Your task to perform on an android device: set an alarm Image 0: 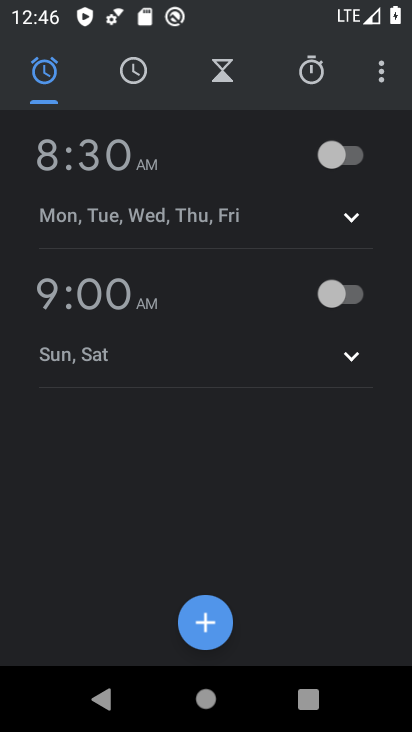
Step 0: press home button
Your task to perform on an android device: set an alarm Image 1: 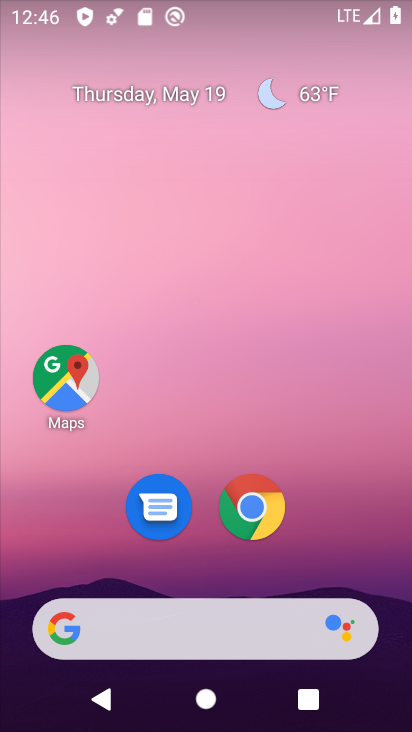
Step 1: drag from (216, 577) to (335, 236)
Your task to perform on an android device: set an alarm Image 2: 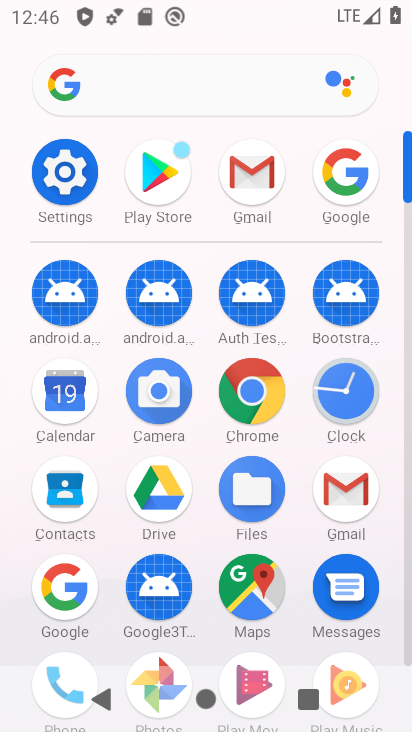
Step 2: click (363, 403)
Your task to perform on an android device: set an alarm Image 3: 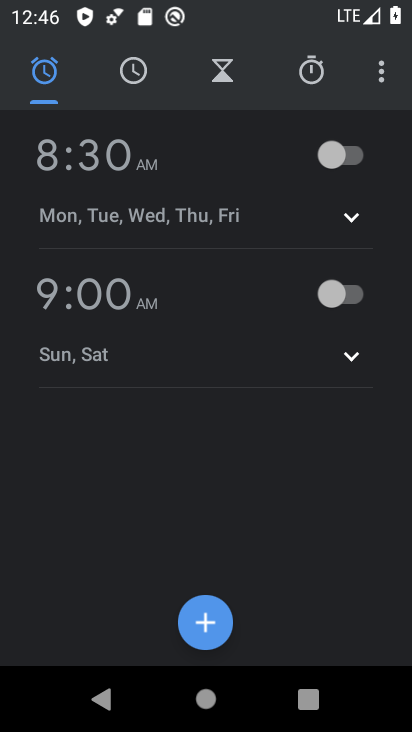
Step 3: click (199, 628)
Your task to perform on an android device: set an alarm Image 4: 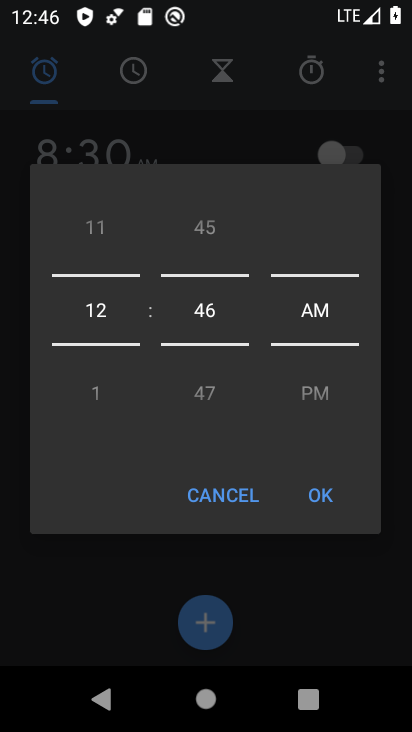
Step 4: drag from (96, 325) to (198, 58)
Your task to perform on an android device: set an alarm Image 5: 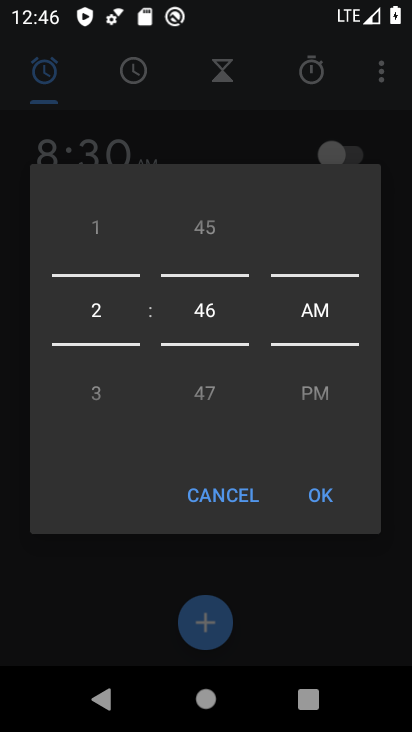
Step 5: drag from (109, 329) to (125, 130)
Your task to perform on an android device: set an alarm Image 6: 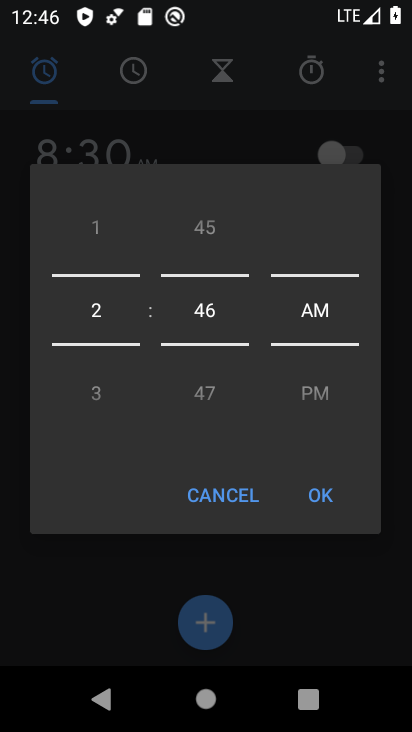
Step 6: drag from (111, 329) to (157, 73)
Your task to perform on an android device: set an alarm Image 7: 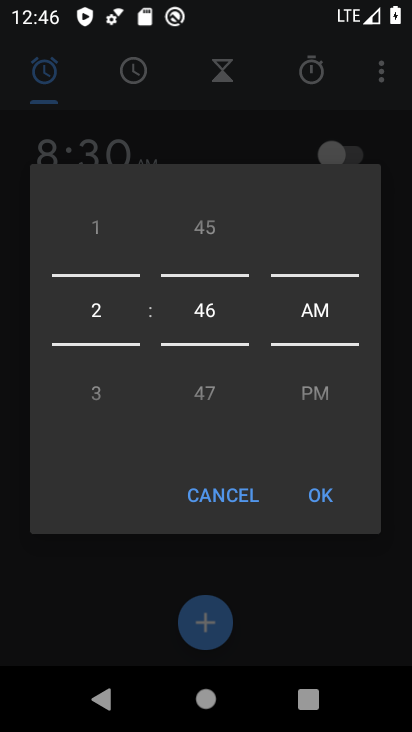
Step 7: drag from (101, 329) to (143, 88)
Your task to perform on an android device: set an alarm Image 8: 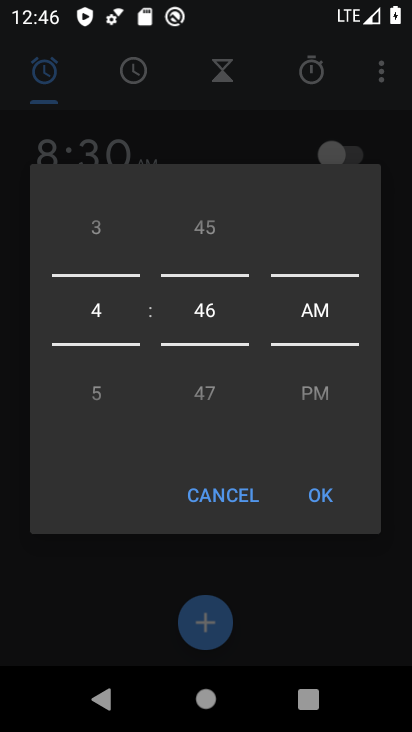
Step 8: drag from (112, 340) to (160, 126)
Your task to perform on an android device: set an alarm Image 9: 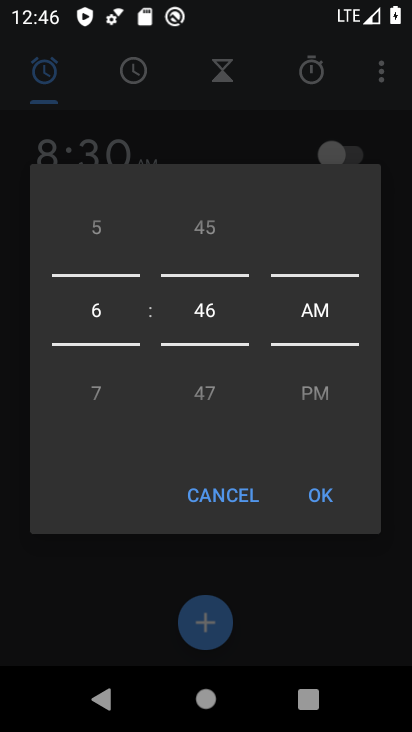
Step 9: drag from (209, 321) to (233, 148)
Your task to perform on an android device: set an alarm Image 10: 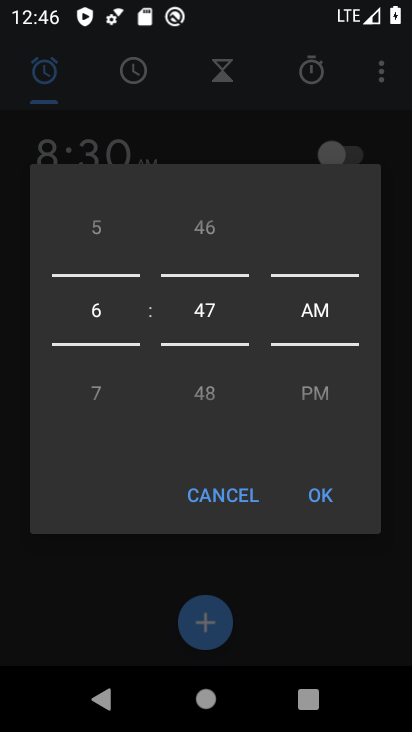
Step 10: drag from (195, 293) to (207, 443)
Your task to perform on an android device: set an alarm Image 11: 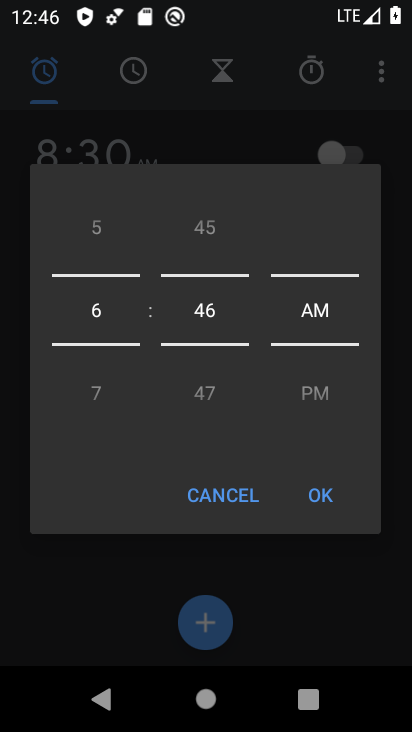
Step 11: drag from (199, 324) to (273, 89)
Your task to perform on an android device: set an alarm Image 12: 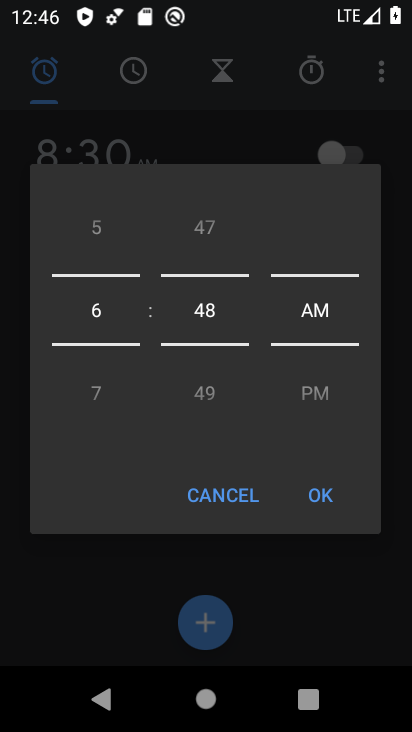
Step 12: drag from (215, 329) to (250, 118)
Your task to perform on an android device: set an alarm Image 13: 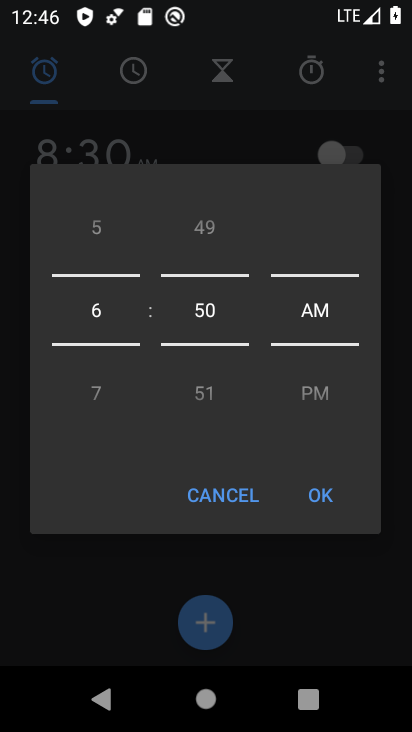
Step 13: drag from (213, 343) to (249, 160)
Your task to perform on an android device: set an alarm Image 14: 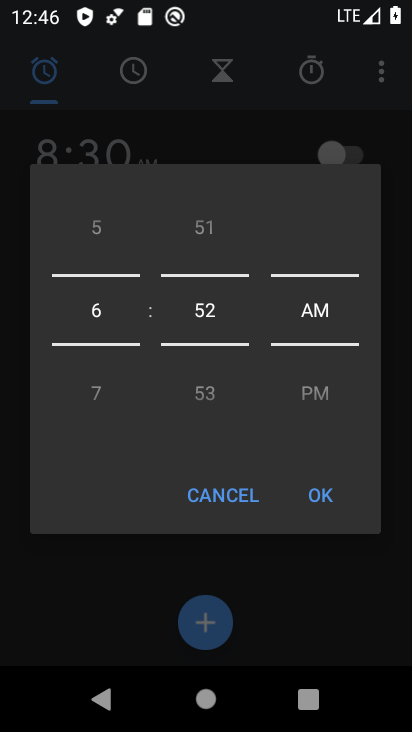
Step 14: drag from (207, 331) to (251, 165)
Your task to perform on an android device: set an alarm Image 15: 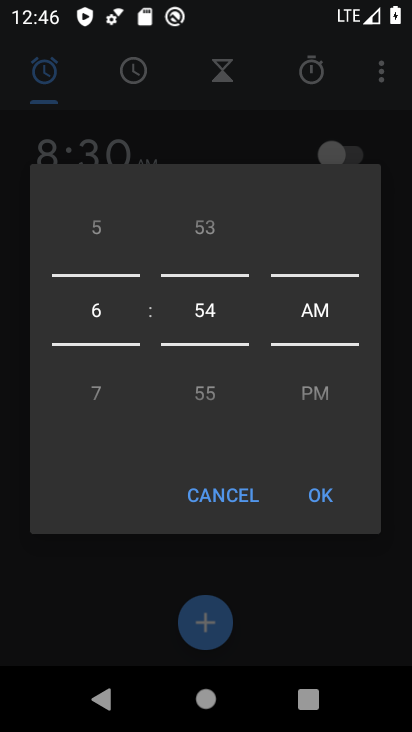
Step 15: drag from (198, 337) to (246, 160)
Your task to perform on an android device: set an alarm Image 16: 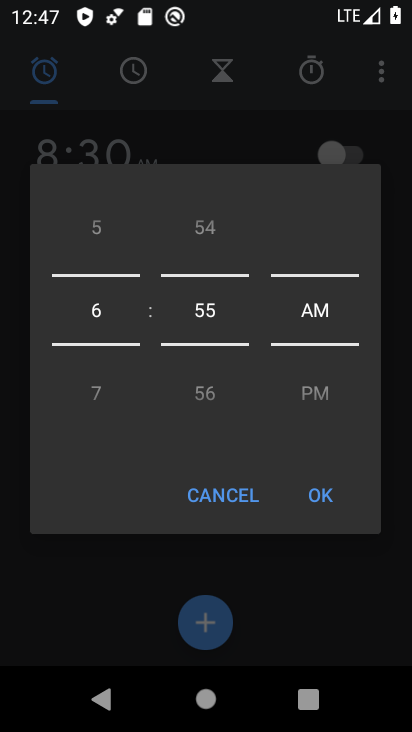
Step 16: drag from (208, 312) to (259, 113)
Your task to perform on an android device: set an alarm Image 17: 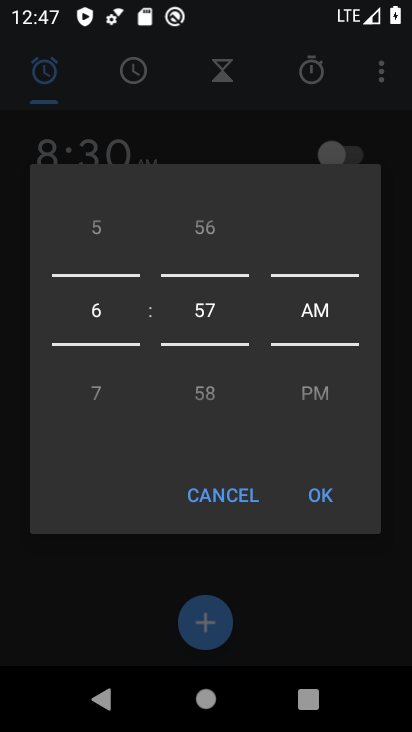
Step 17: drag from (200, 334) to (251, 140)
Your task to perform on an android device: set an alarm Image 18: 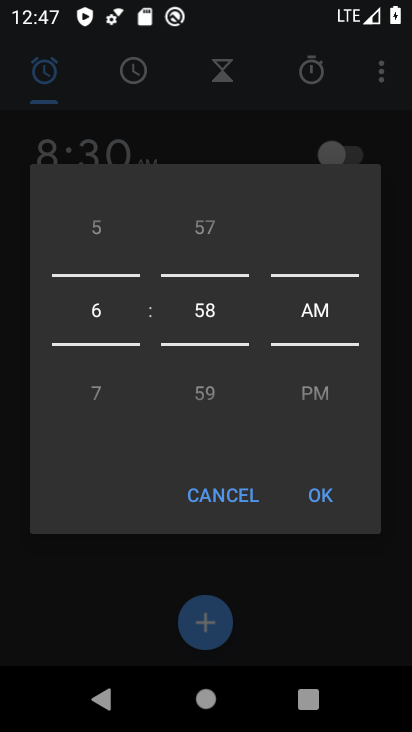
Step 18: drag from (213, 330) to (258, 166)
Your task to perform on an android device: set an alarm Image 19: 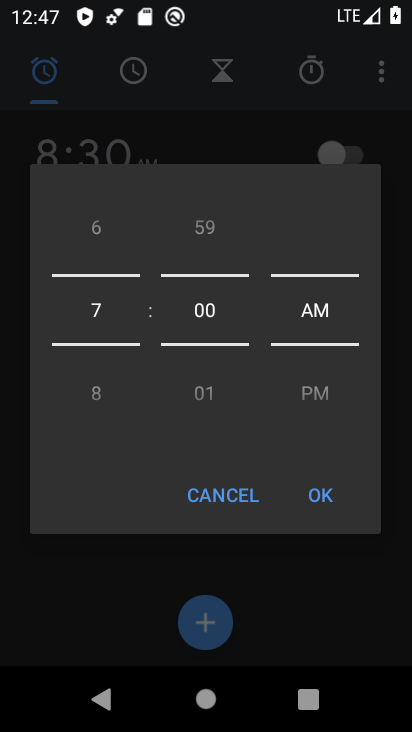
Step 19: drag from (327, 341) to (370, 167)
Your task to perform on an android device: set an alarm Image 20: 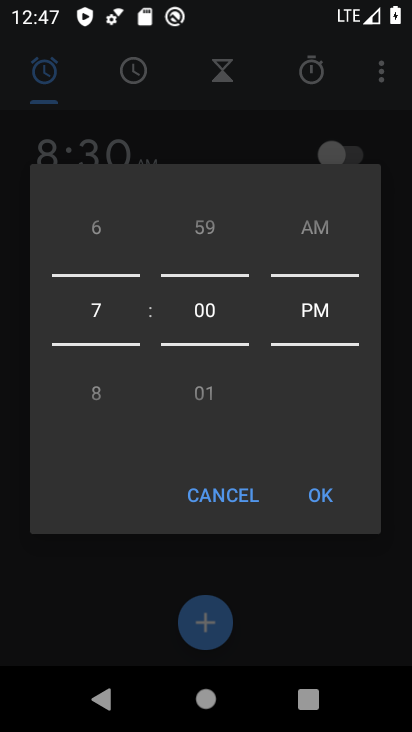
Step 20: click (322, 487)
Your task to perform on an android device: set an alarm Image 21: 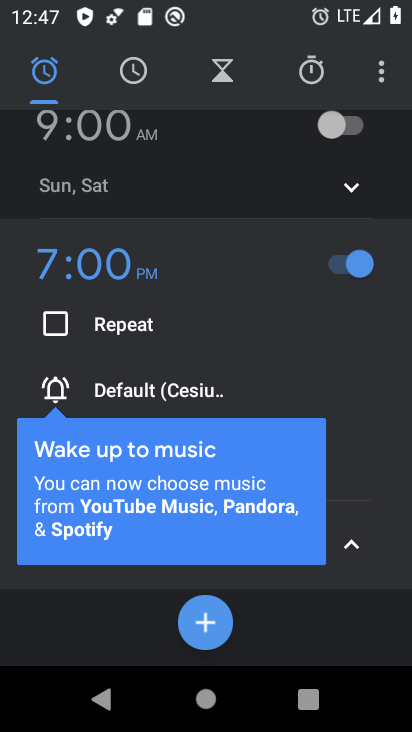
Step 21: click (54, 380)
Your task to perform on an android device: set an alarm Image 22: 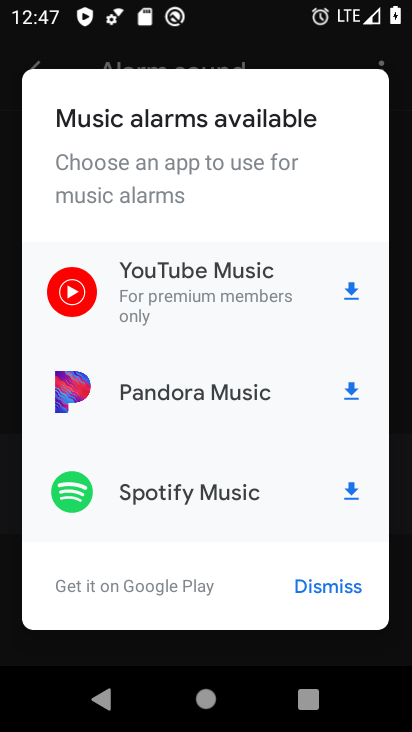
Step 22: click (199, 495)
Your task to perform on an android device: set an alarm Image 23: 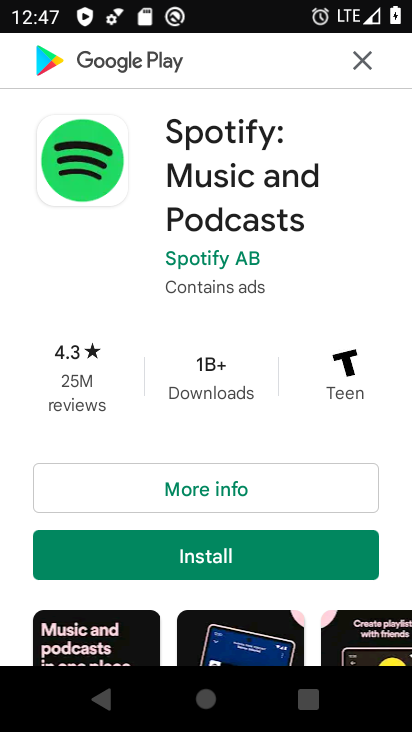
Step 23: click (360, 60)
Your task to perform on an android device: set an alarm Image 24: 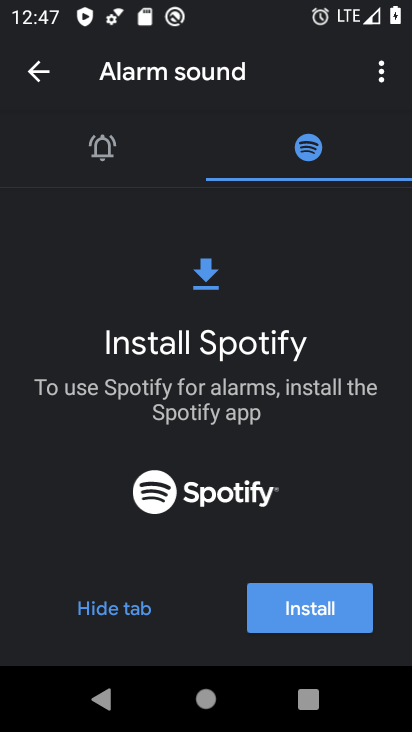
Step 24: task complete